Your task to perform on an android device: change the clock display to analog Image 0: 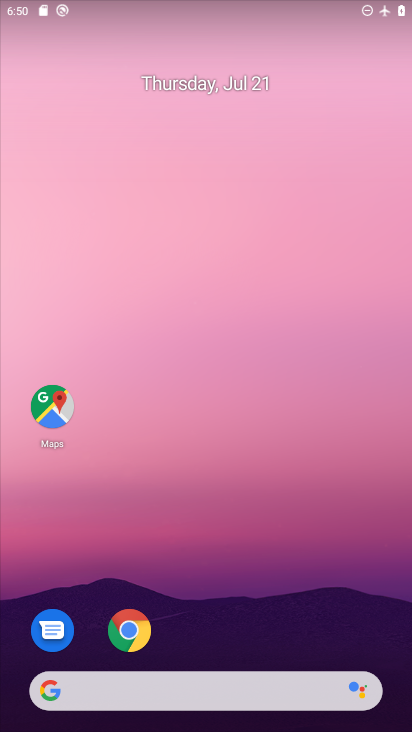
Step 0: drag from (186, 691) to (299, 37)
Your task to perform on an android device: change the clock display to analog Image 1: 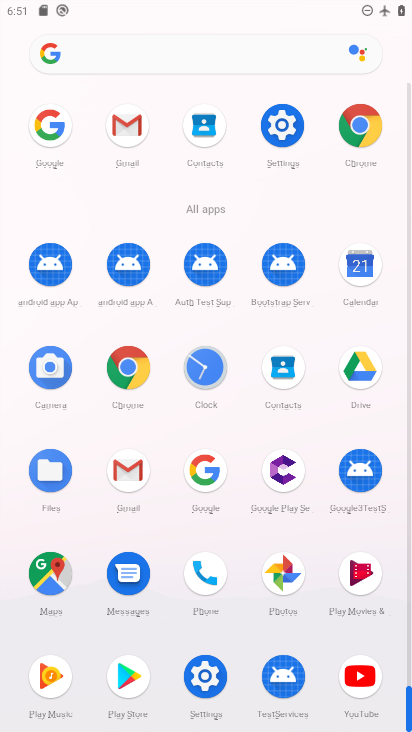
Step 1: click (206, 367)
Your task to perform on an android device: change the clock display to analog Image 2: 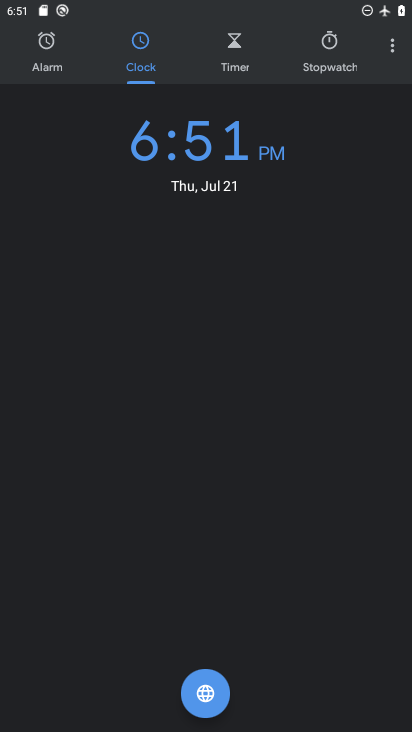
Step 2: click (394, 46)
Your task to perform on an android device: change the clock display to analog Image 3: 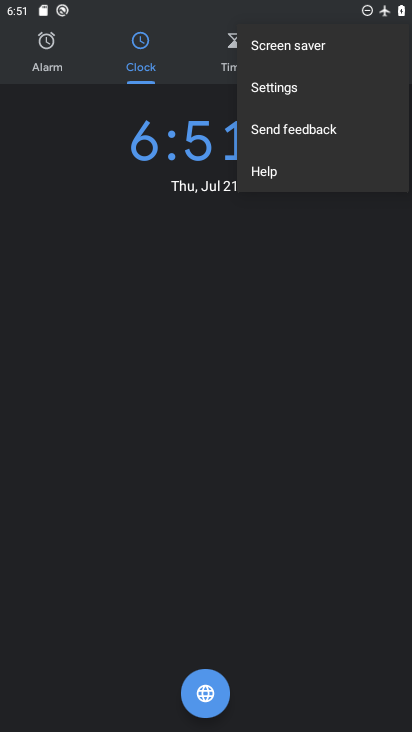
Step 3: click (286, 87)
Your task to perform on an android device: change the clock display to analog Image 4: 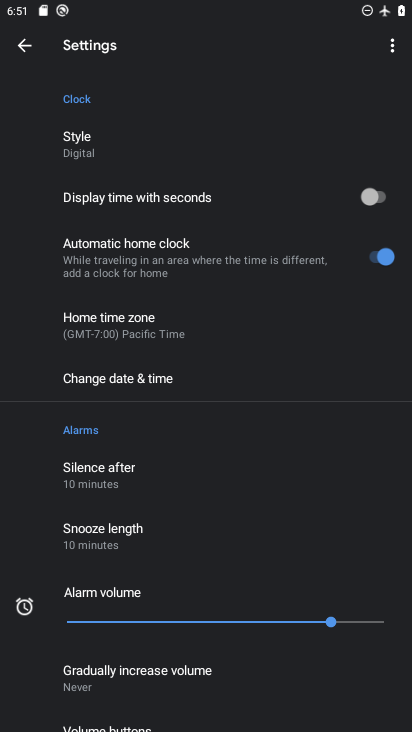
Step 4: click (73, 149)
Your task to perform on an android device: change the clock display to analog Image 5: 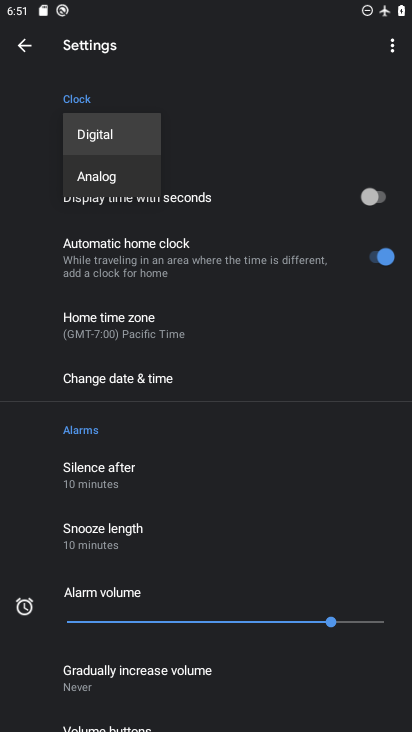
Step 5: click (96, 180)
Your task to perform on an android device: change the clock display to analog Image 6: 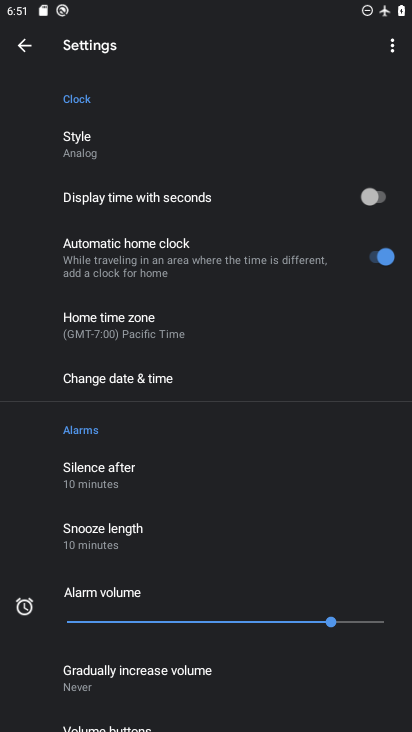
Step 6: task complete